Your task to perform on an android device: toggle data saver in the chrome app Image 0: 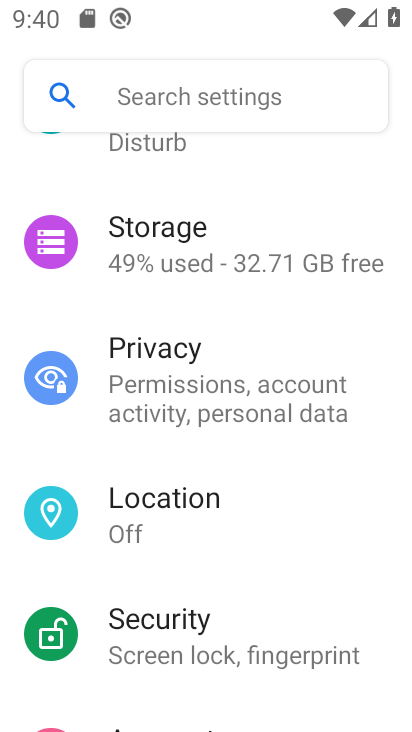
Step 0: press home button
Your task to perform on an android device: toggle data saver in the chrome app Image 1: 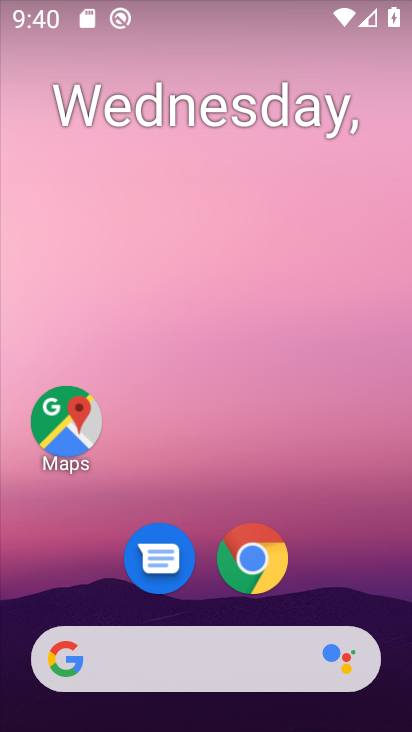
Step 1: drag from (379, 603) to (396, 268)
Your task to perform on an android device: toggle data saver in the chrome app Image 2: 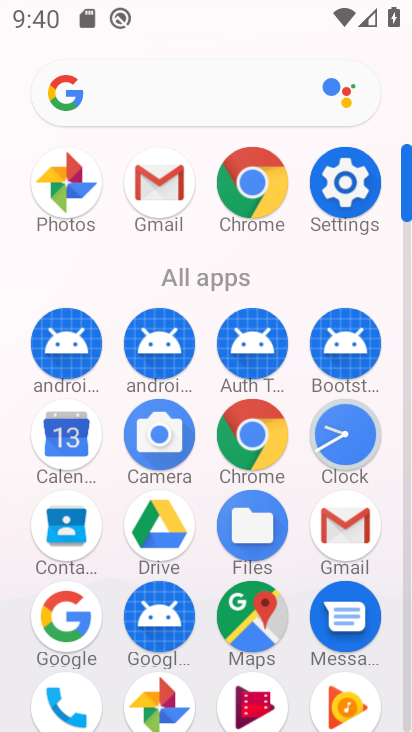
Step 2: drag from (331, 244) to (338, 90)
Your task to perform on an android device: toggle data saver in the chrome app Image 3: 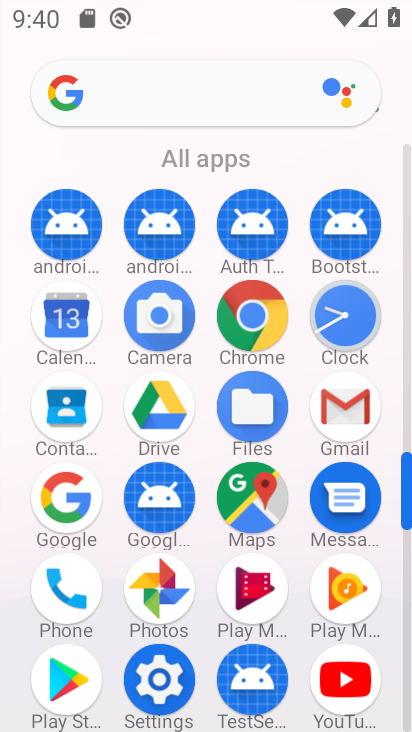
Step 3: click (264, 316)
Your task to perform on an android device: toggle data saver in the chrome app Image 4: 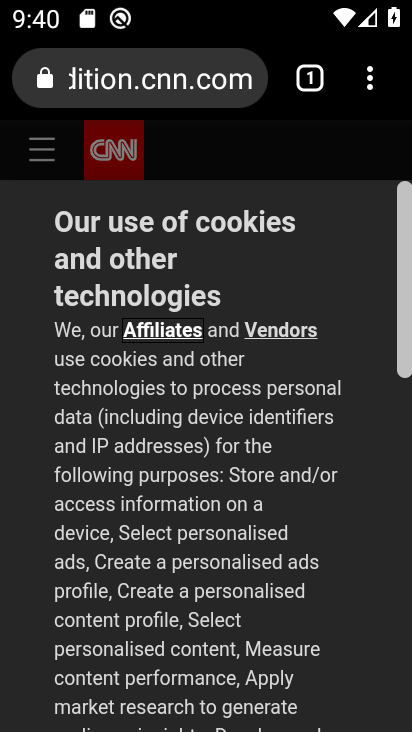
Step 4: click (372, 87)
Your task to perform on an android device: toggle data saver in the chrome app Image 5: 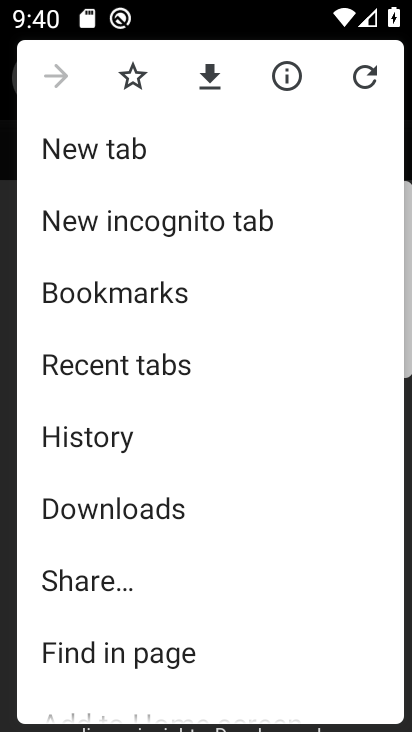
Step 5: drag from (294, 440) to (301, 355)
Your task to perform on an android device: toggle data saver in the chrome app Image 6: 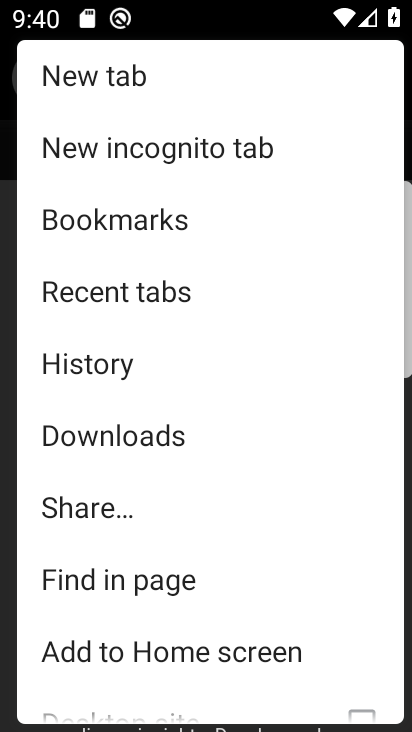
Step 6: drag from (301, 468) to (308, 357)
Your task to perform on an android device: toggle data saver in the chrome app Image 7: 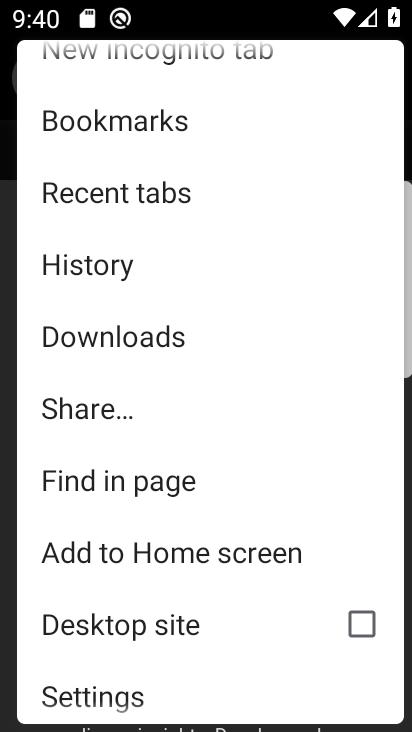
Step 7: drag from (295, 490) to (301, 325)
Your task to perform on an android device: toggle data saver in the chrome app Image 8: 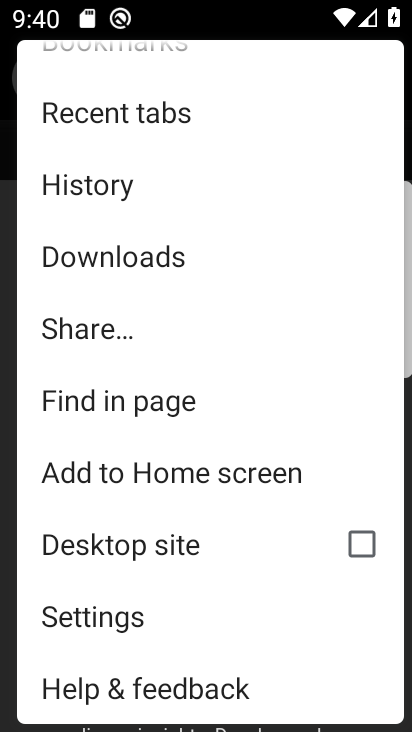
Step 8: click (223, 611)
Your task to perform on an android device: toggle data saver in the chrome app Image 9: 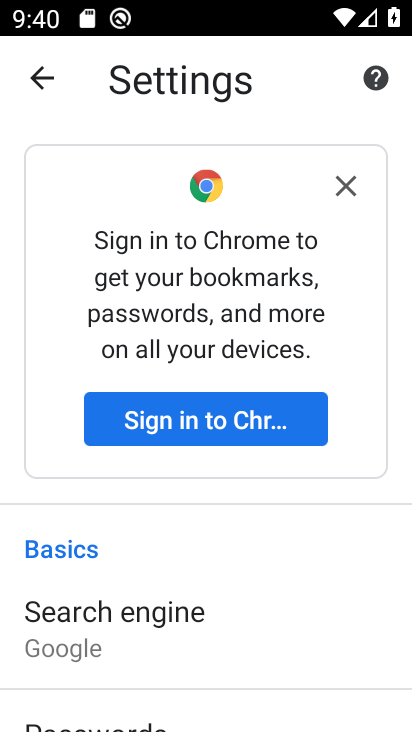
Step 9: drag from (319, 603) to (328, 473)
Your task to perform on an android device: toggle data saver in the chrome app Image 10: 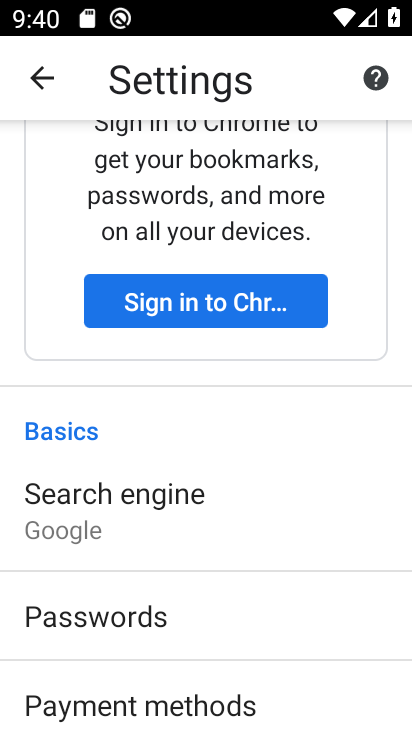
Step 10: drag from (322, 559) to (323, 475)
Your task to perform on an android device: toggle data saver in the chrome app Image 11: 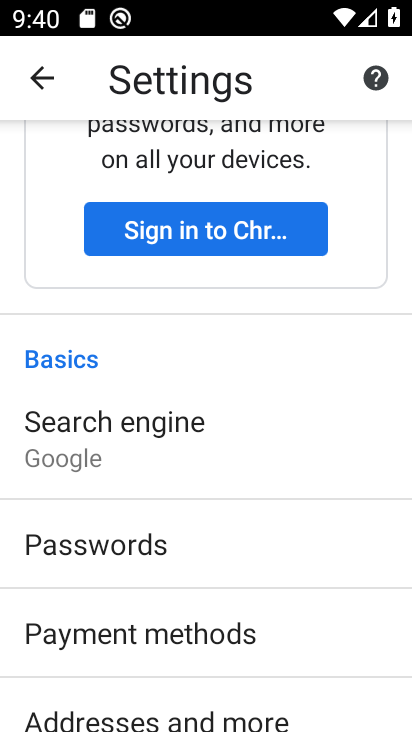
Step 11: drag from (331, 564) to (346, 435)
Your task to perform on an android device: toggle data saver in the chrome app Image 12: 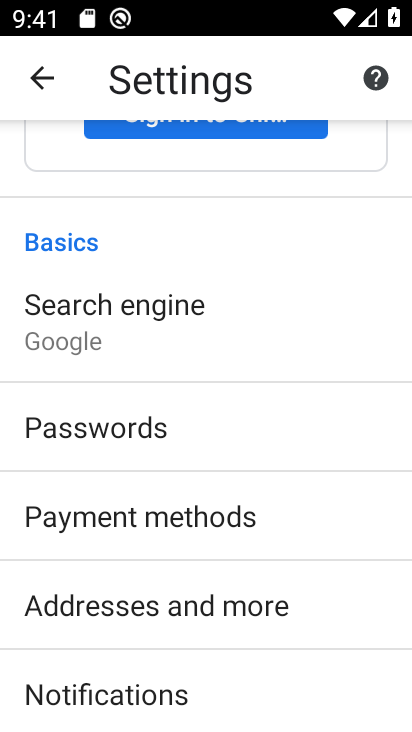
Step 12: drag from (352, 534) to (348, 437)
Your task to perform on an android device: toggle data saver in the chrome app Image 13: 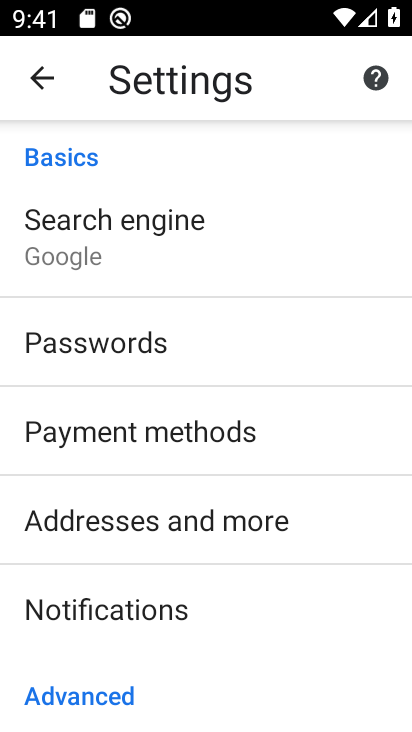
Step 13: drag from (346, 544) to (354, 432)
Your task to perform on an android device: toggle data saver in the chrome app Image 14: 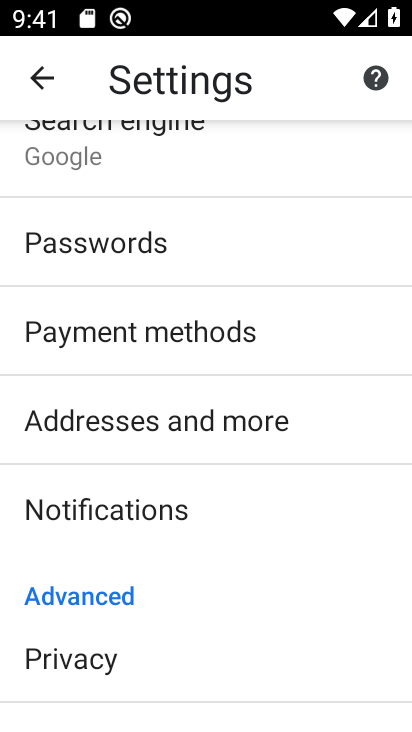
Step 14: drag from (338, 571) to (341, 385)
Your task to perform on an android device: toggle data saver in the chrome app Image 15: 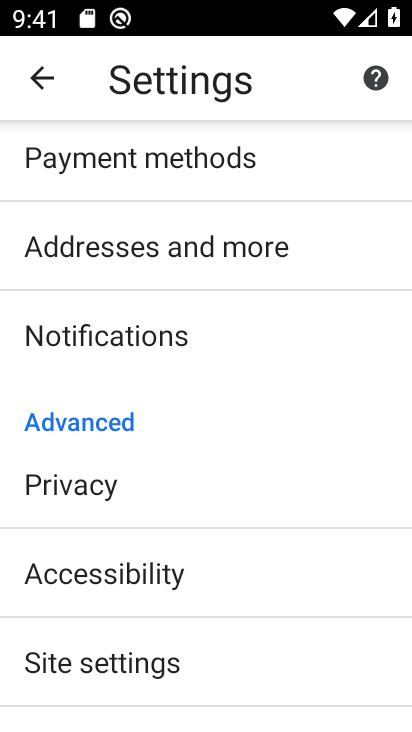
Step 15: drag from (332, 560) to (332, 437)
Your task to perform on an android device: toggle data saver in the chrome app Image 16: 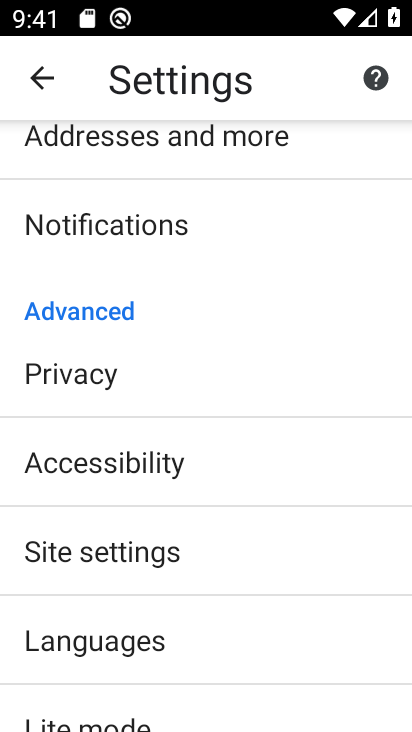
Step 16: drag from (323, 573) to (340, 409)
Your task to perform on an android device: toggle data saver in the chrome app Image 17: 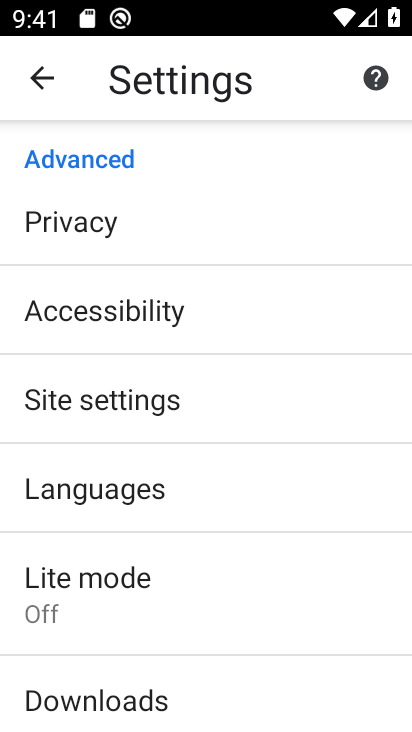
Step 17: click (340, 586)
Your task to perform on an android device: toggle data saver in the chrome app Image 18: 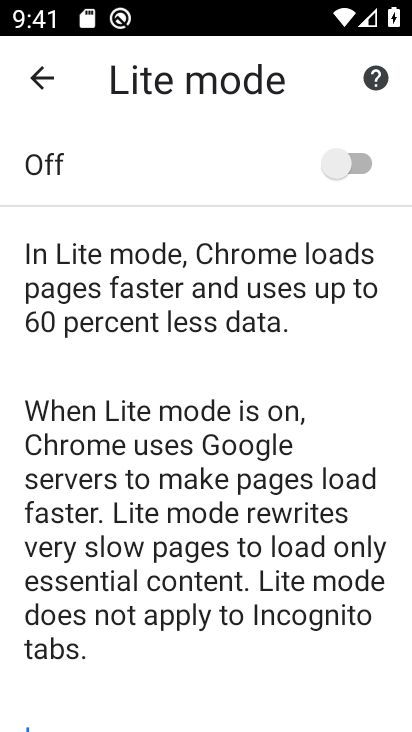
Step 18: click (349, 156)
Your task to perform on an android device: toggle data saver in the chrome app Image 19: 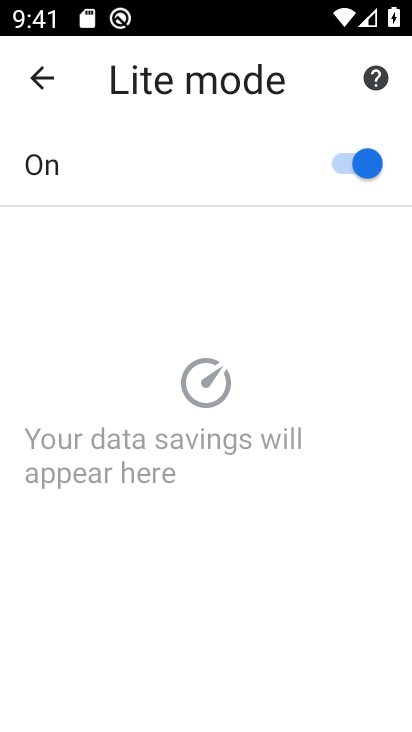
Step 19: task complete